Your task to perform on an android device: turn on notifications settings in the gmail app Image 0: 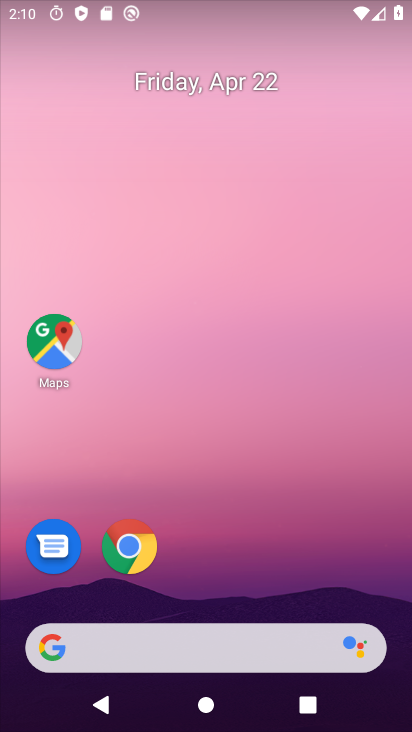
Step 0: click (199, 105)
Your task to perform on an android device: turn on notifications settings in the gmail app Image 1: 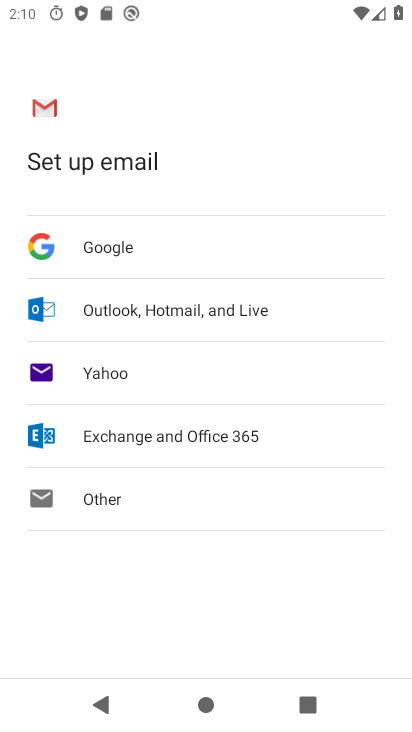
Step 1: press home button
Your task to perform on an android device: turn on notifications settings in the gmail app Image 2: 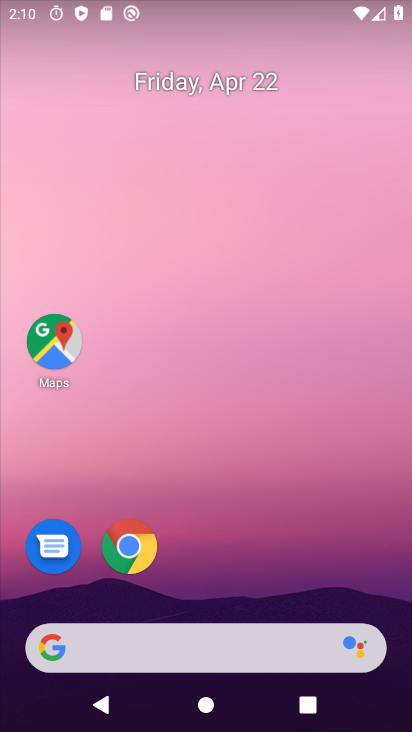
Step 2: drag from (169, 598) to (187, 68)
Your task to perform on an android device: turn on notifications settings in the gmail app Image 3: 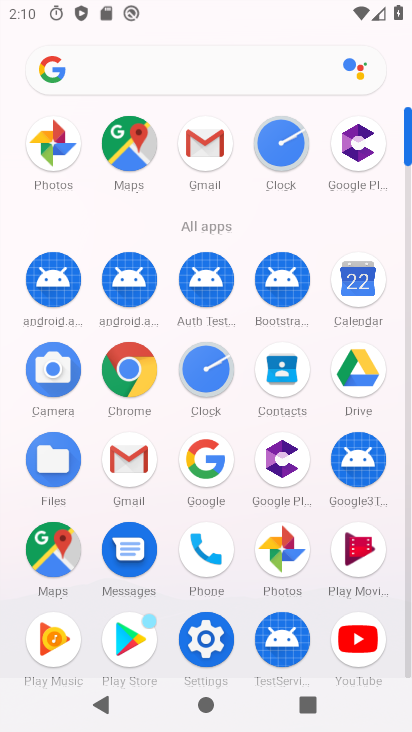
Step 3: click (124, 462)
Your task to perform on an android device: turn on notifications settings in the gmail app Image 4: 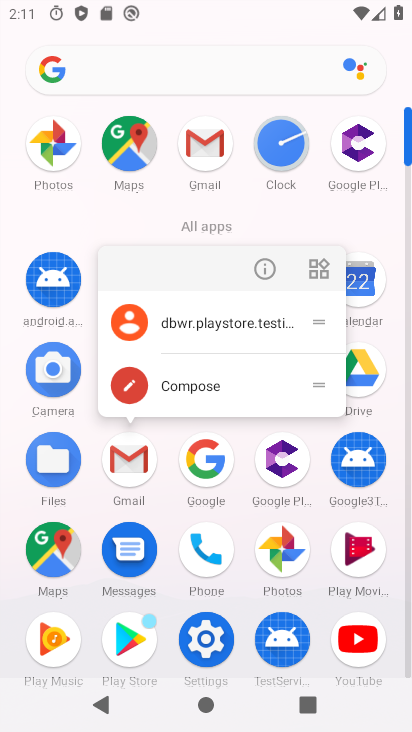
Step 4: click (276, 252)
Your task to perform on an android device: turn on notifications settings in the gmail app Image 5: 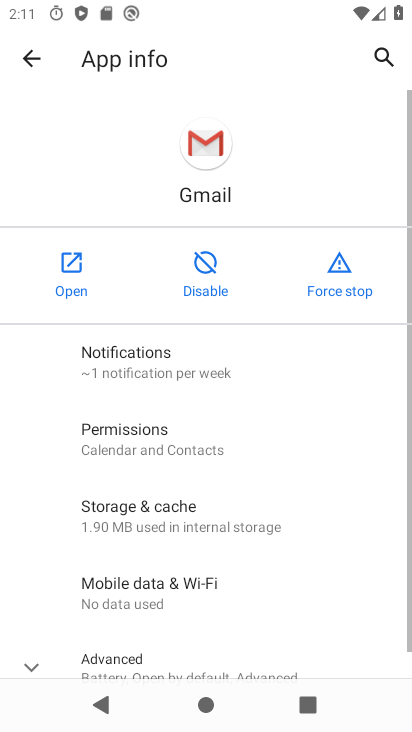
Step 5: click (71, 240)
Your task to perform on an android device: turn on notifications settings in the gmail app Image 6: 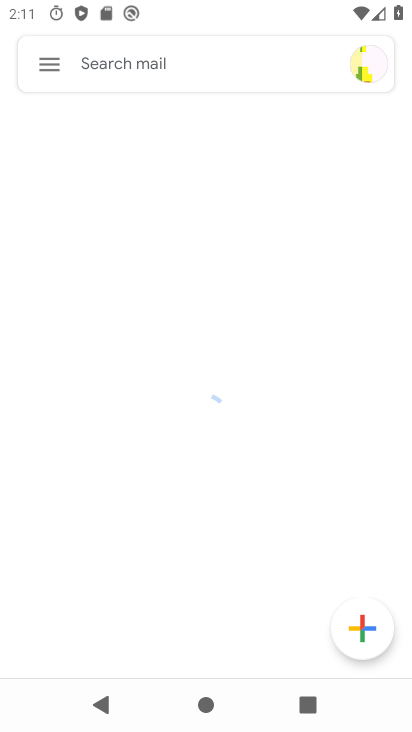
Step 6: click (59, 59)
Your task to perform on an android device: turn on notifications settings in the gmail app Image 7: 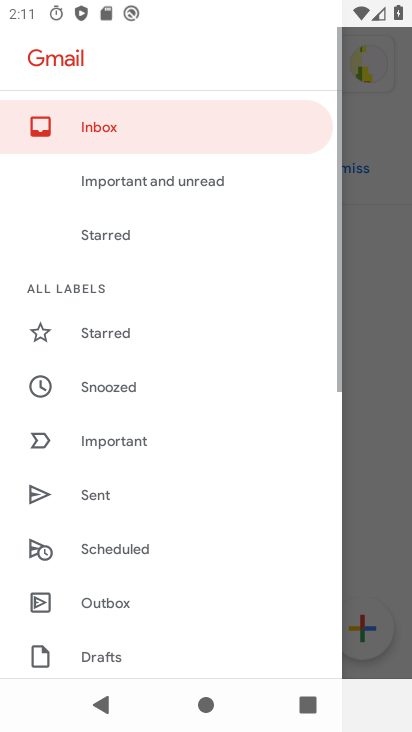
Step 7: drag from (163, 567) to (193, 193)
Your task to perform on an android device: turn on notifications settings in the gmail app Image 8: 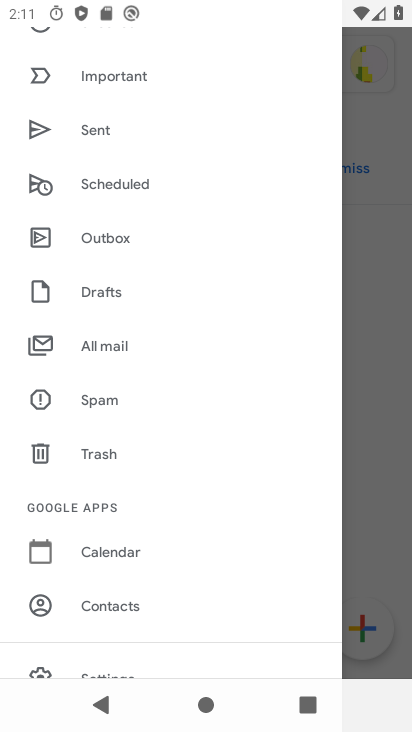
Step 8: drag from (140, 605) to (184, 249)
Your task to perform on an android device: turn on notifications settings in the gmail app Image 9: 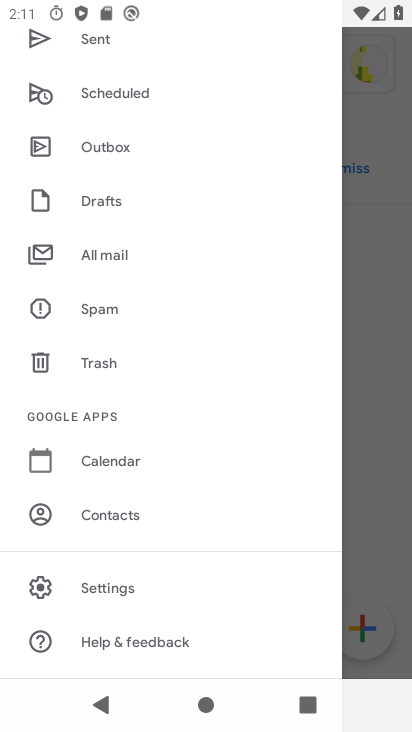
Step 9: click (171, 589)
Your task to perform on an android device: turn on notifications settings in the gmail app Image 10: 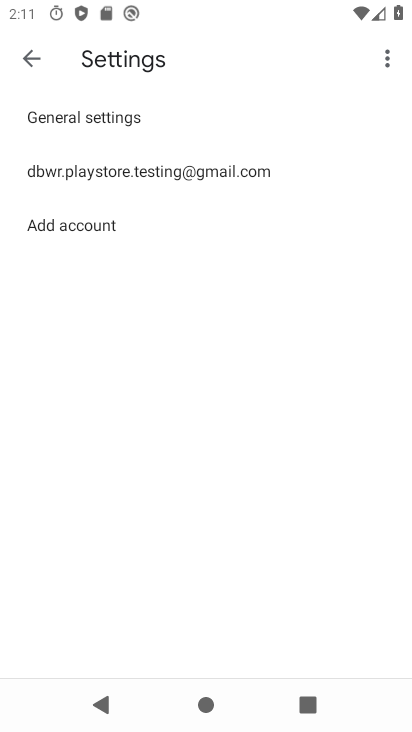
Step 10: click (161, 172)
Your task to perform on an android device: turn on notifications settings in the gmail app Image 11: 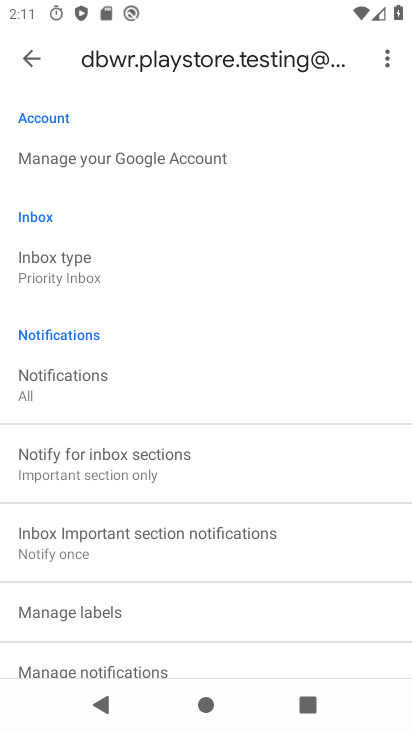
Step 11: drag from (135, 585) to (192, 237)
Your task to perform on an android device: turn on notifications settings in the gmail app Image 12: 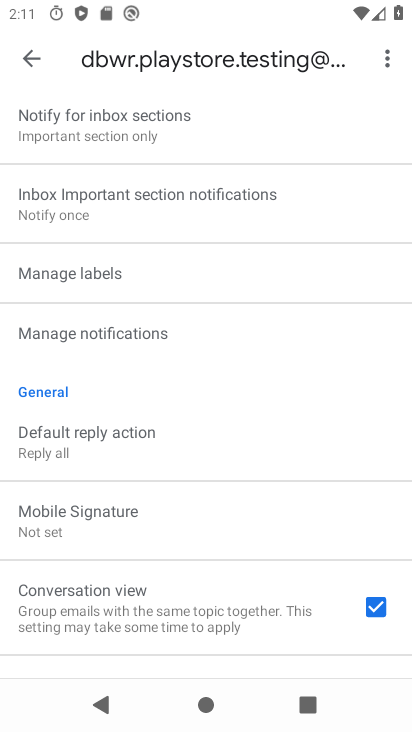
Step 12: click (151, 331)
Your task to perform on an android device: turn on notifications settings in the gmail app Image 13: 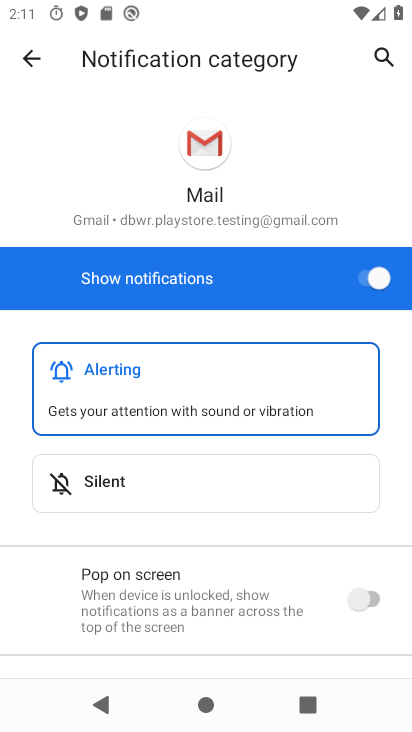
Step 13: task complete